Your task to perform on an android device: read, delete, or share a saved page in the chrome app Image 0: 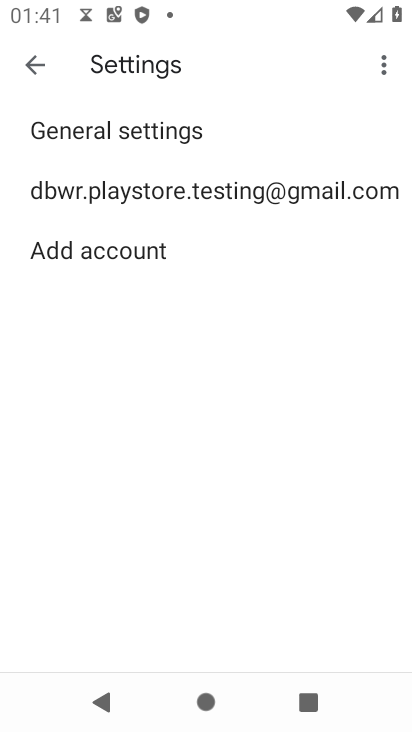
Step 0: press home button
Your task to perform on an android device: read, delete, or share a saved page in the chrome app Image 1: 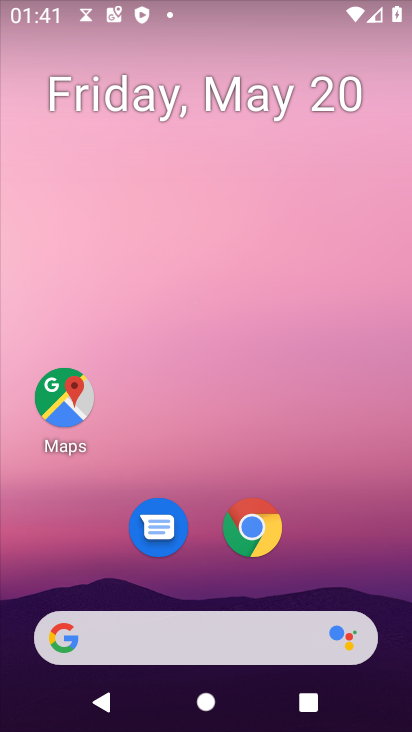
Step 1: click (252, 542)
Your task to perform on an android device: read, delete, or share a saved page in the chrome app Image 2: 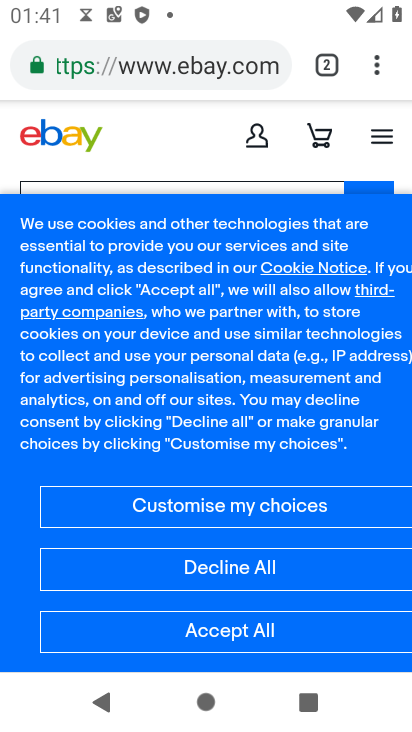
Step 2: drag from (379, 73) to (193, 434)
Your task to perform on an android device: read, delete, or share a saved page in the chrome app Image 3: 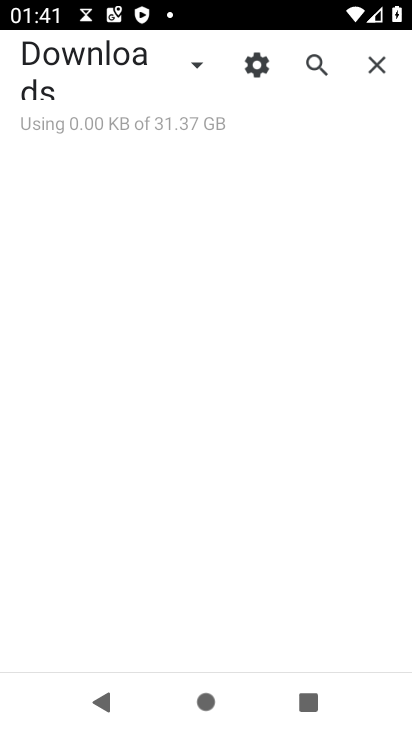
Step 3: click (160, 64)
Your task to perform on an android device: read, delete, or share a saved page in the chrome app Image 4: 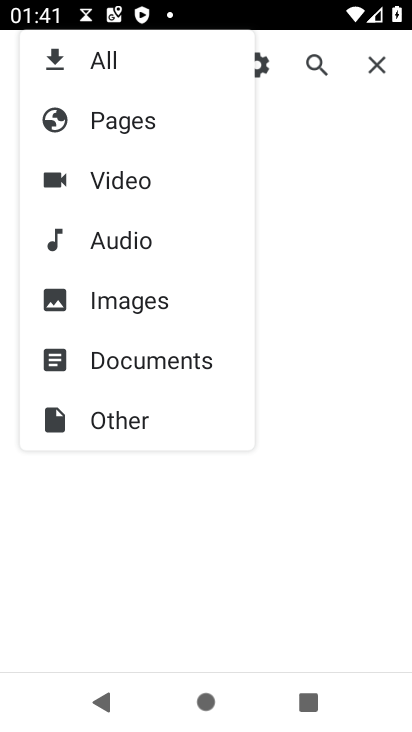
Step 4: click (116, 118)
Your task to perform on an android device: read, delete, or share a saved page in the chrome app Image 5: 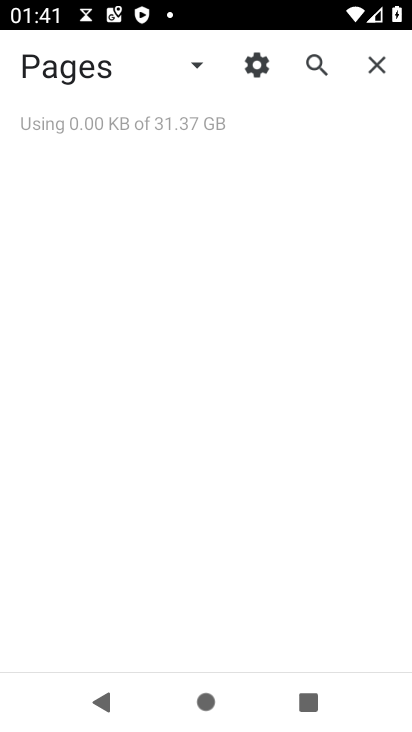
Step 5: task complete